Your task to perform on an android device: turn on sleep mode Image 0: 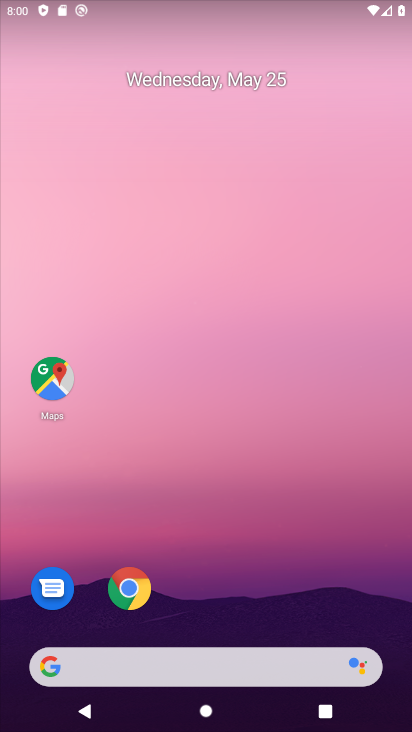
Step 0: drag from (41, 602) to (271, 116)
Your task to perform on an android device: turn on sleep mode Image 1: 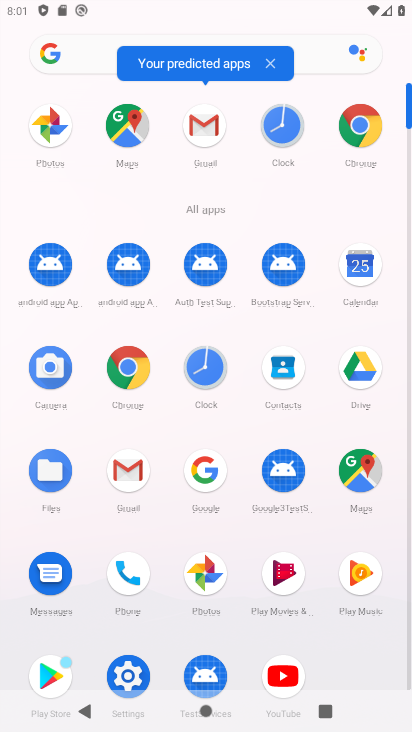
Step 1: click (126, 679)
Your task to perform on an android device: turn on sleep mode Image 2: 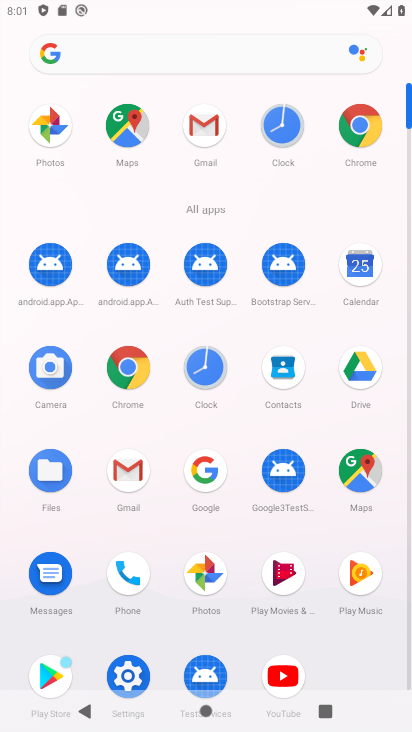
Step 2: click (119, 667)
Your task to perform on an android device: turn on sleep mode Image 3: 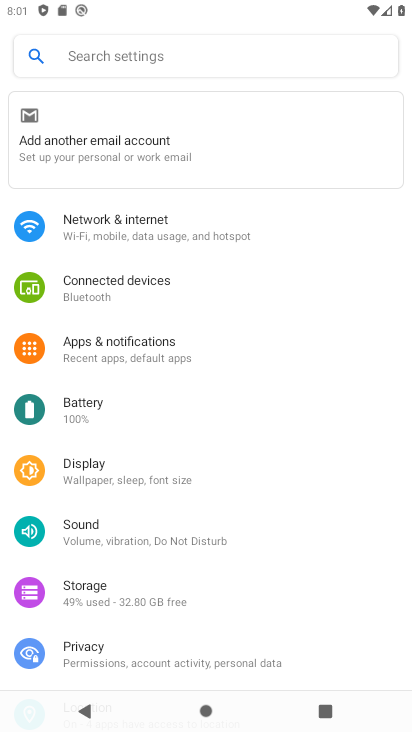
Step 3: click (166, 484)
Your task to perform on an android device: turn on sleep mode Image 4: 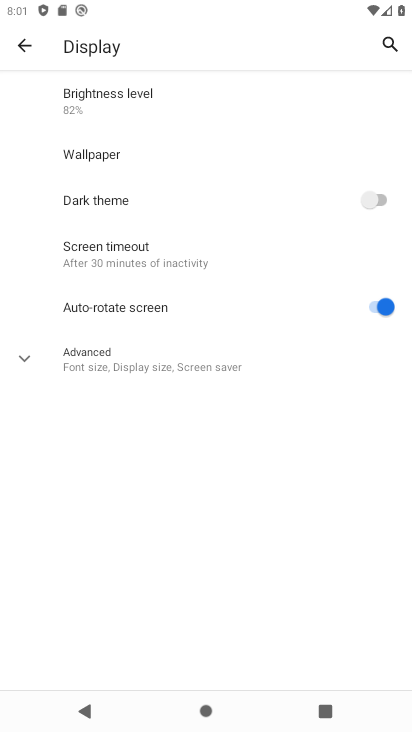
Step 4: task complete